Your task to perform on an android device: Open notification settings Image 0: 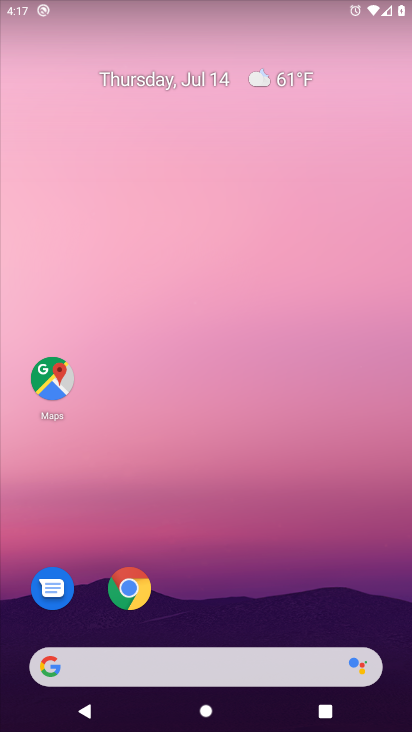
Step 0: press home button
Your task to perform on an android device: Open notification settings Image 1: 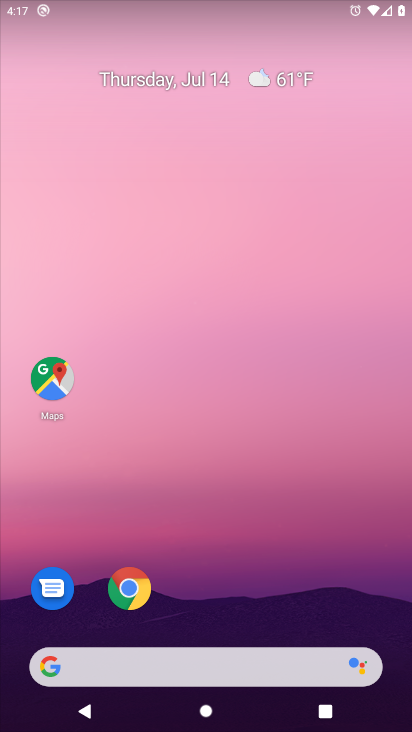
Step 1: drag from (247, 592) to (255, 80)
Your task to perform on an android device: Open notification settings Image 2: 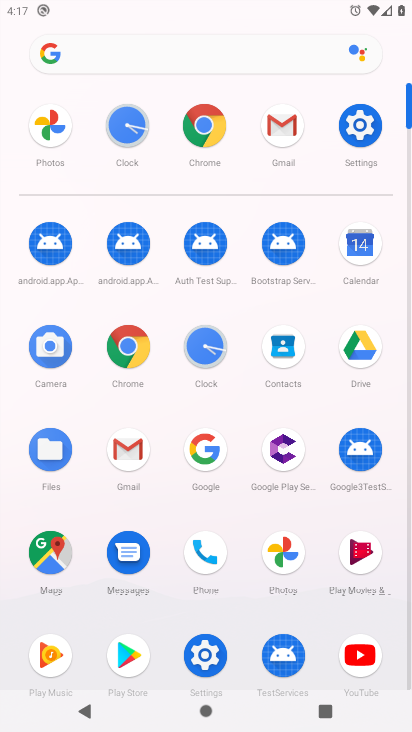
Step 2: click (357, 131)
Your task to perform on an android device: Open notification settings Image 3: 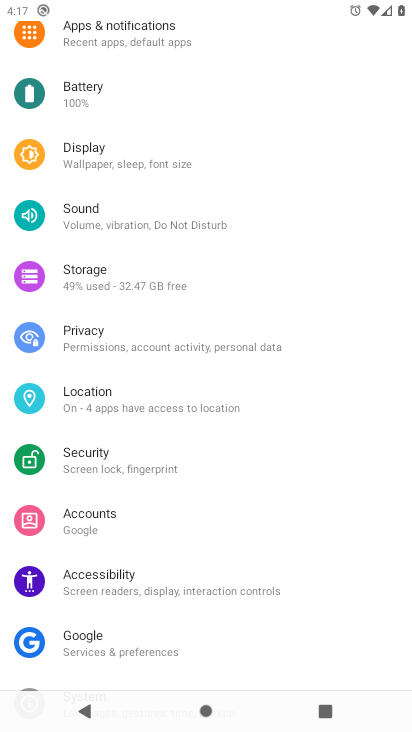
Step 3: click (129, 24)
Your task to perform on an android device: Open notification settings Image 4: 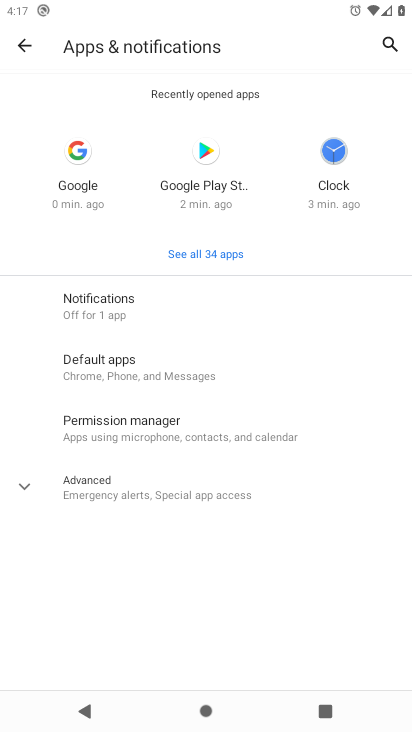
Step 4: click (89, 293)
Your task to perform on an android device: Open notification settings Image 5: 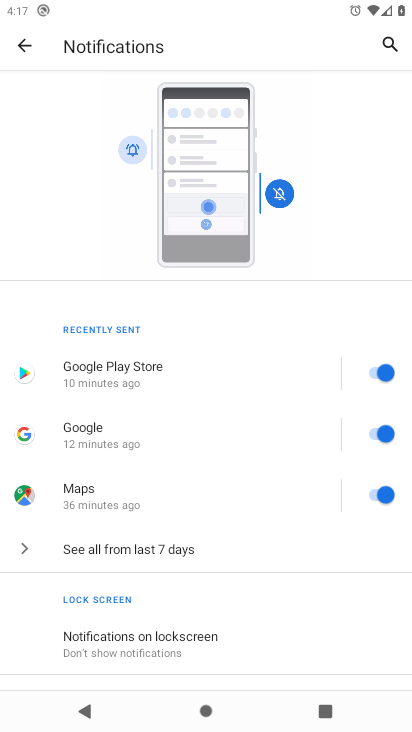
Step 5: task complete